Your task to perform on an android device: turn off airplane mode Image 0: 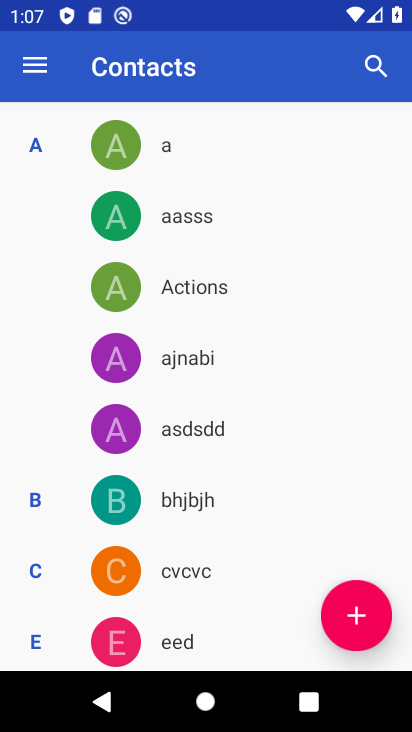
Step 0: press home button
Your task to perform on an android device: turn off airplane mode Image 1: 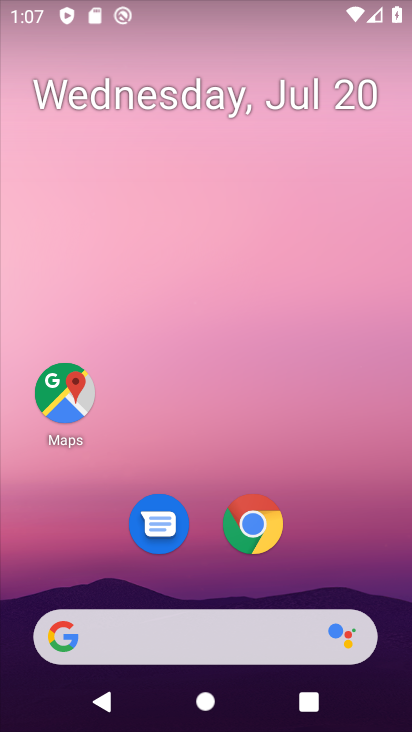
Step 1: drag from (334, 520) to (348, 65)
Your task to perform on an android device: turn off airplane mode Image 2: 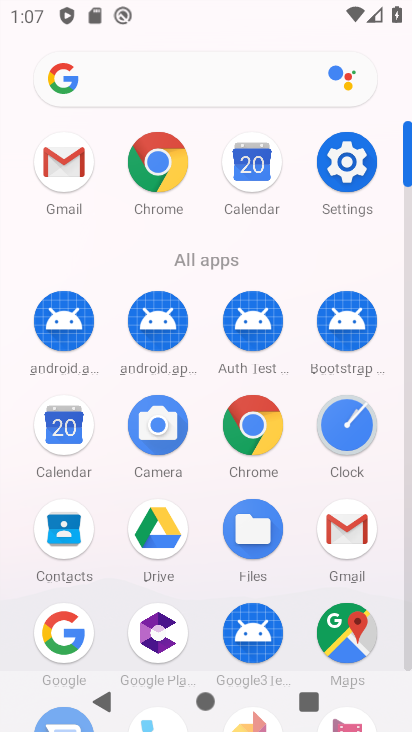
Step 2: click (353, 178)
Your task to perform on an android device: turn off airplane mode Image 3: 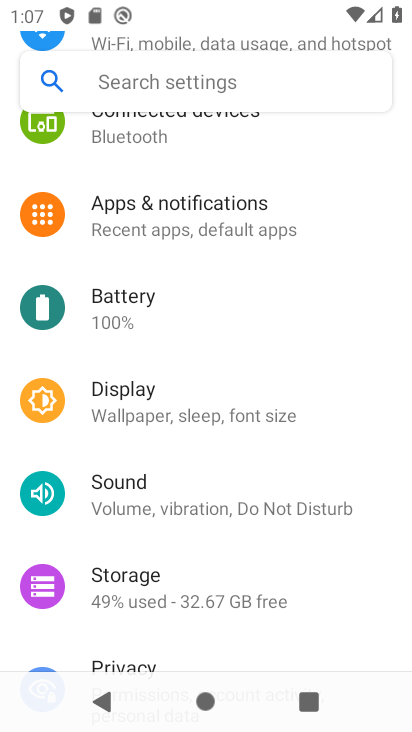
Step 3: drag from (270, 170) to (265, 594)
Your task to perform on an android device: turn off airplane mode Image 4: 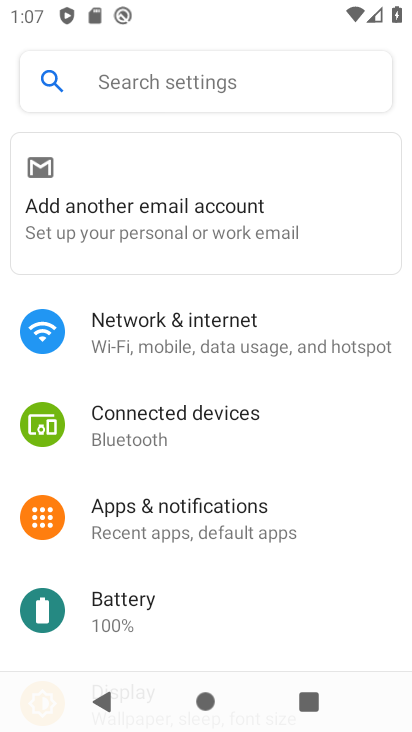
Step 4: click (248, 338)
Your task to perform on an android device: turn off airplane mode Image 5: 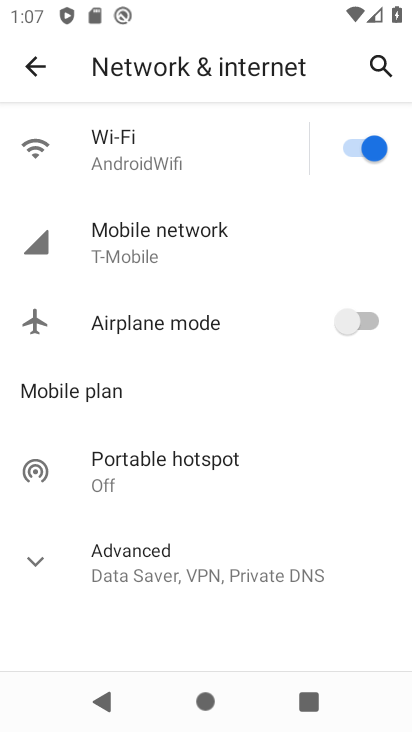
Step 5: task complete